Your task to perform on an android device: add a contact in the contacts app Image 0: 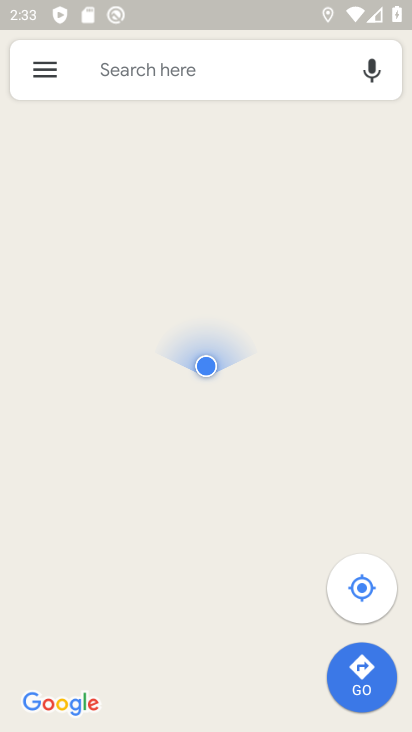
Step 0: press home button
Your task to perform on an android device: add a contact in the contacts app Image 1: 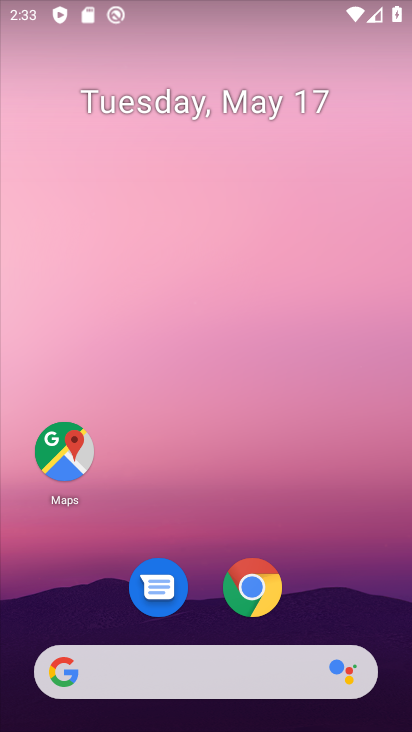
Step 1: drag from (260, 636) to (287, 48)
Your task to perform on an android device: add a contact in the contacts app Image 2: 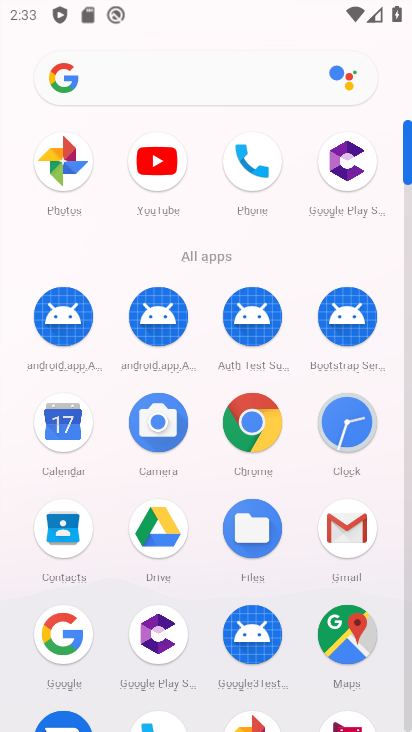
Step 2: click (69, 530)
Your task to perform on an android device: add a contact in the contacts app Image 3: 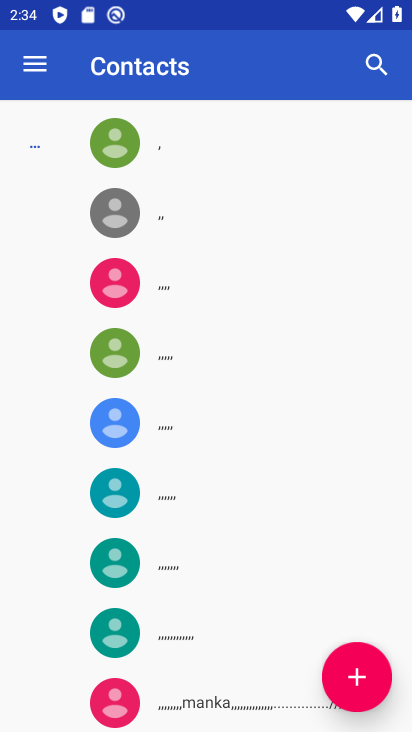
Step 3: click (359, 679)
Your task to perform on an android device: add a contact in the contacts app Image 4: 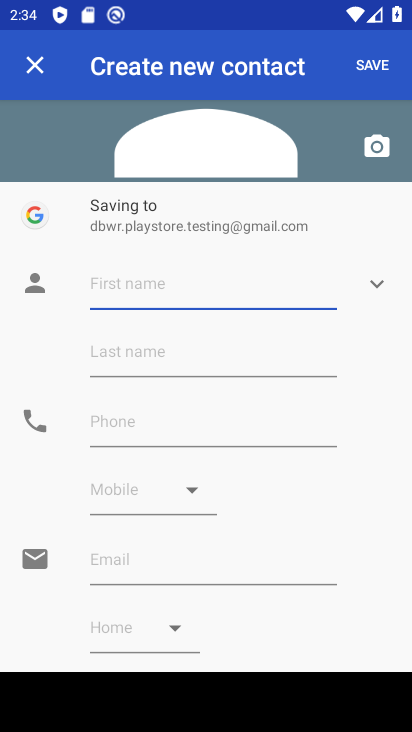
Step 4: type "hggfvfjhvjj"
Your task to perform on an android device: add a contact in the contacts app Image 5: 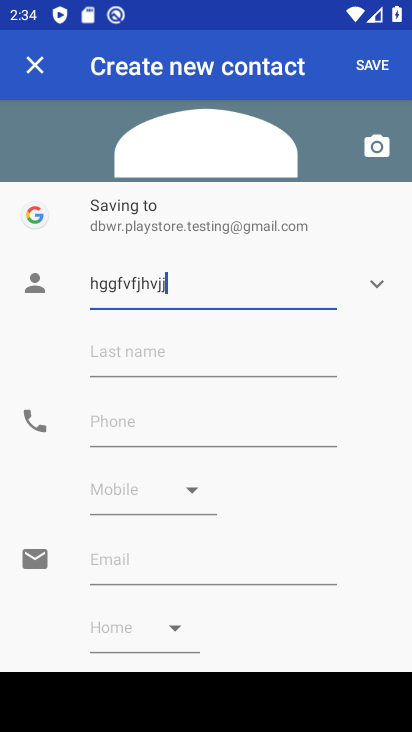
Step 5: click (198, 419)
Your task to perform on an android device: add a contact in the contacts app Image 6: 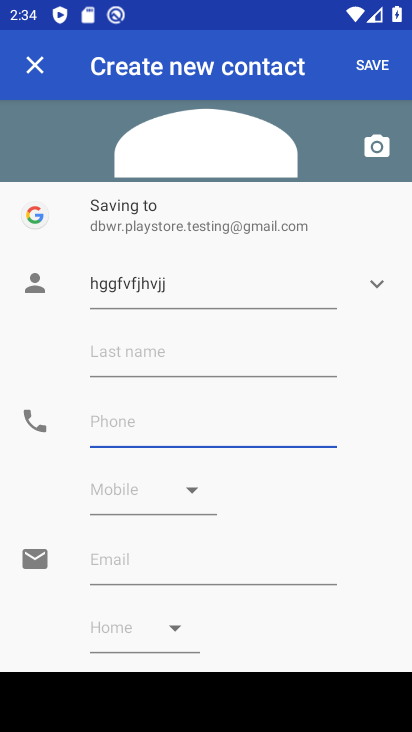
Step 6: type "9898979787"
Your task to perform on an android device: add a contact in the contacts app Image 7: 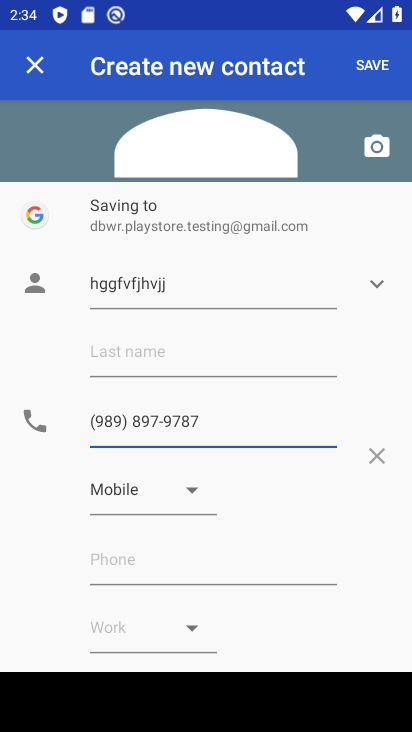
Step 7: click (365, 70)
Your task to perform on an android device: add a contact in the contacts app Image 8: 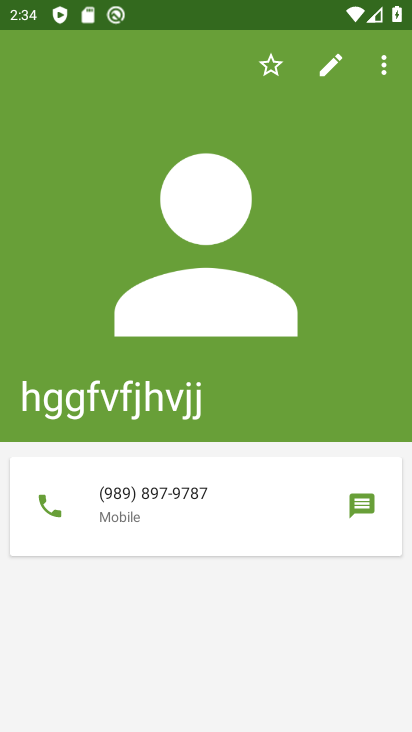
Step 8: task complete